Your task to perform on an android device: Open network settings Image 0: 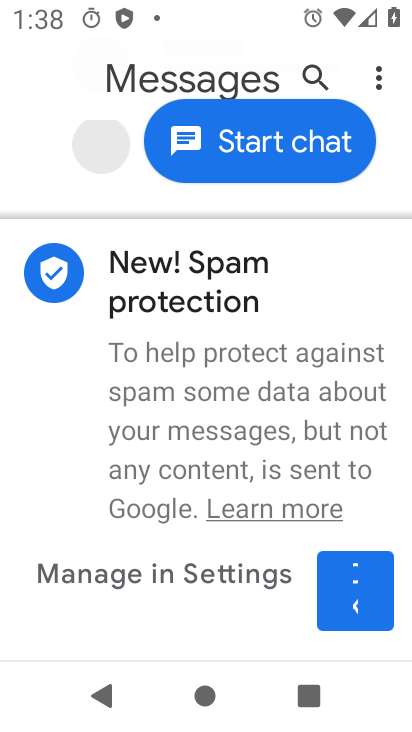
Step 0: press home button
Your task to perform on an android device: Open network settings Image 1: 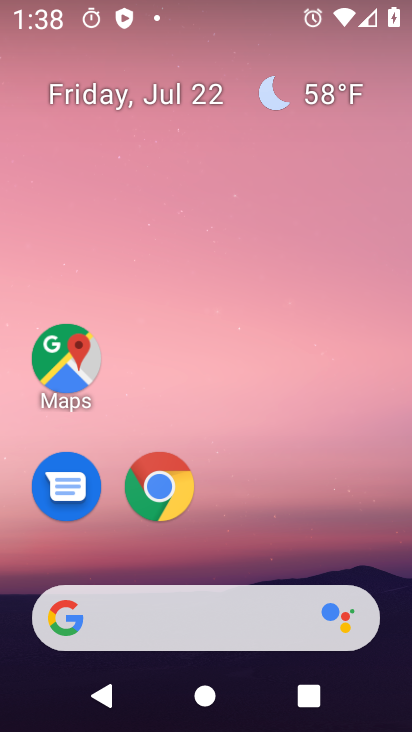
Step 1: drag from (386, 527) to (369, 156)
Your task to perform on an android device: Open network settings Image 2: 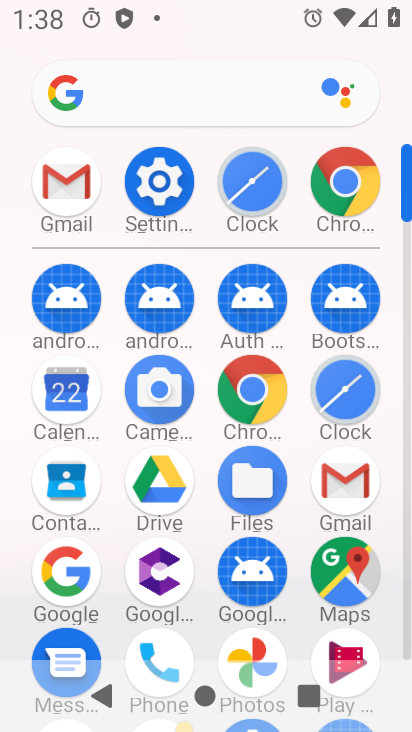
Step 2: click (160, 192)
Your task to perform on an android device: Open network settings Image 3: 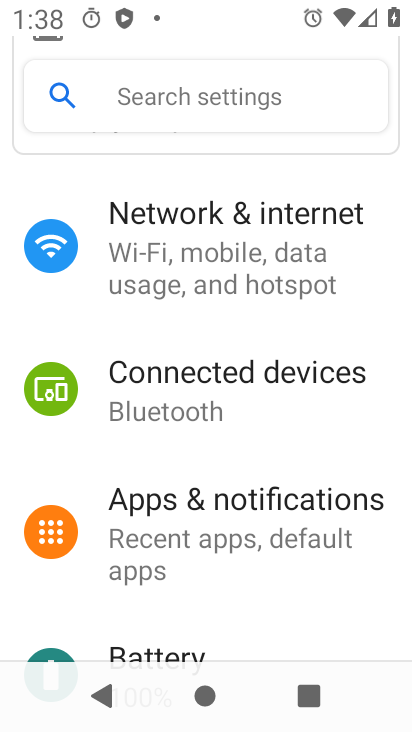
Step 3: drag from (321, 555) to (321, 464)
Your task to perform on an android device: Open network settings Image 4: 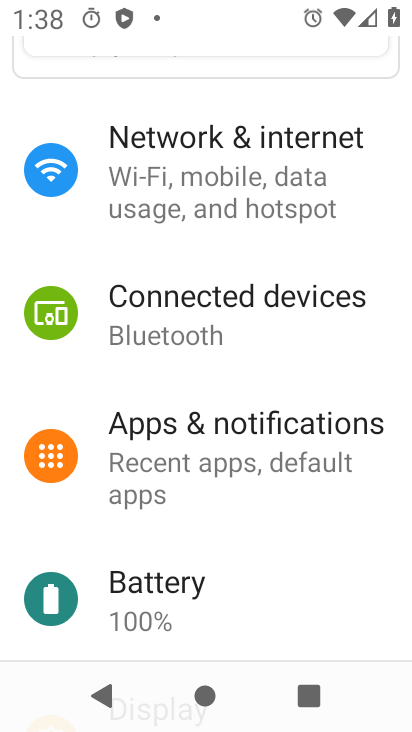
Step 4: drag from (322, 558) to (337, 377)
Your task to perform on an android device: Open network settings Image 5: 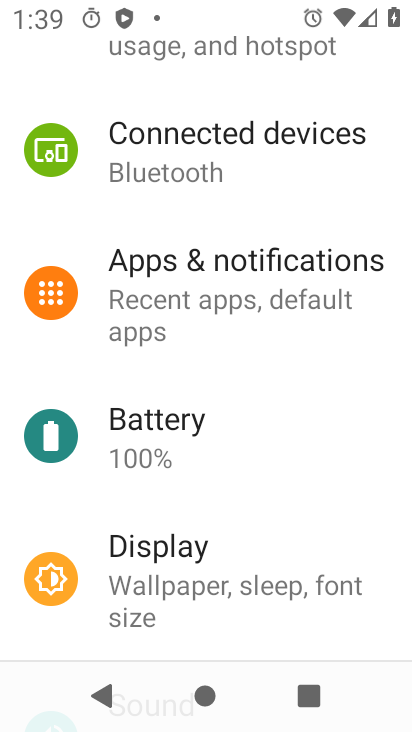
Step 5: drag from (335, 538) to (338, 417)
Your task to perform on an android device: Open network settings Image 6: 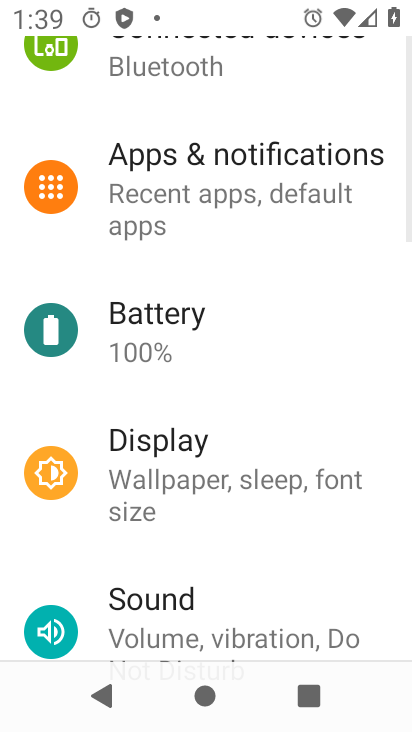
Step 6: drag from (341, 555) to (358, 417)
Your task to perform on an android device: Open network settings Image 7: 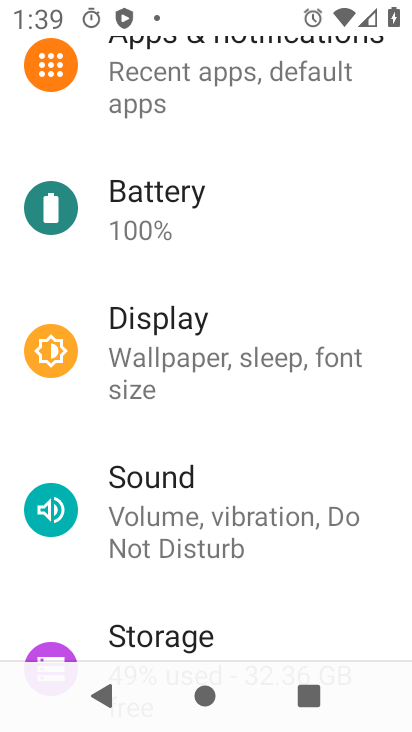
Step 7: drag from (365, 409) to (359, 312)
Your task to perform on an android device: Open network settings Image 8: 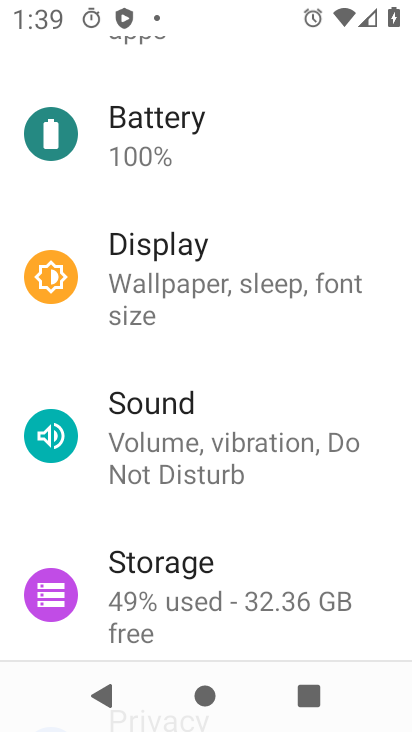
Step 8: drag from (359, 216) to (363, 282)
Your task to perform on an android device: Open network settings Image 9: 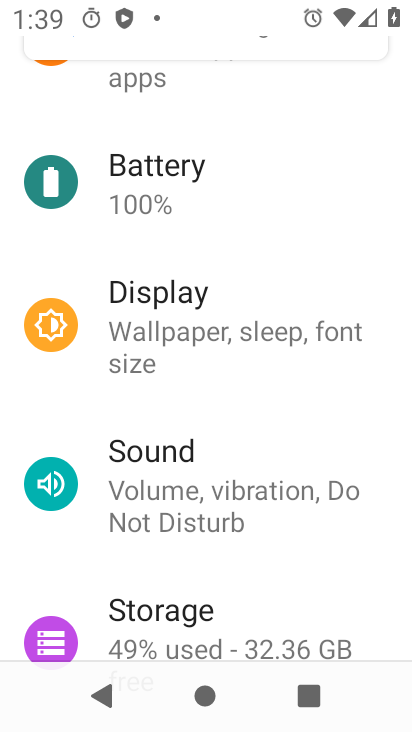
Step 9: drag from (374, 202) to (374, 300)
Your task to perform on an android device: Open network settings Image 10: 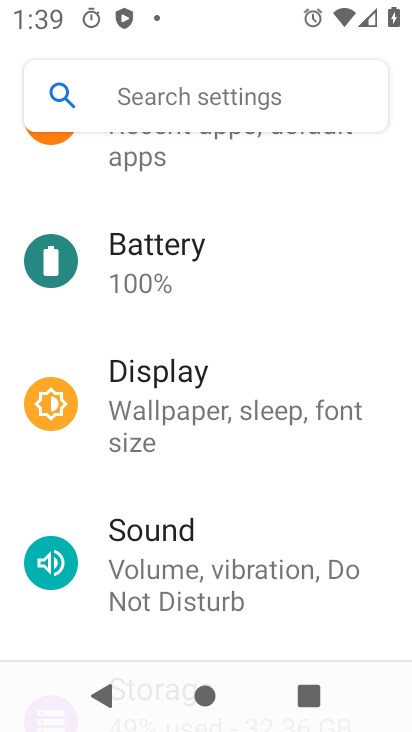
Step 10: drag from (362, 210) to (357, 309)
Your task to perform on an android device: Open network settings Image 11: 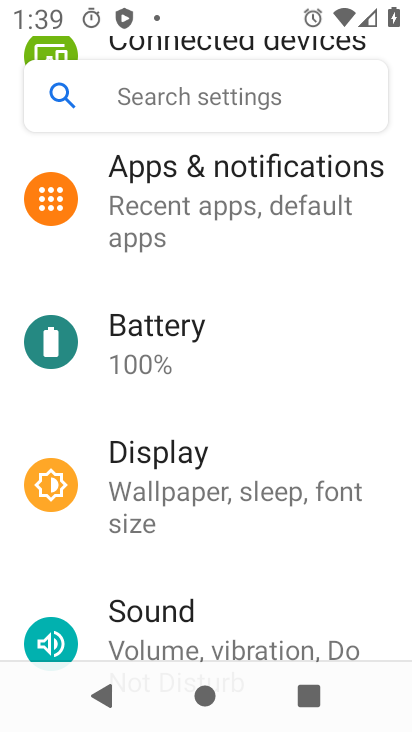
Step 11: drag from (362, 248) to (357, 338)
Your task to perform on an android device: Open network settings Image 12: 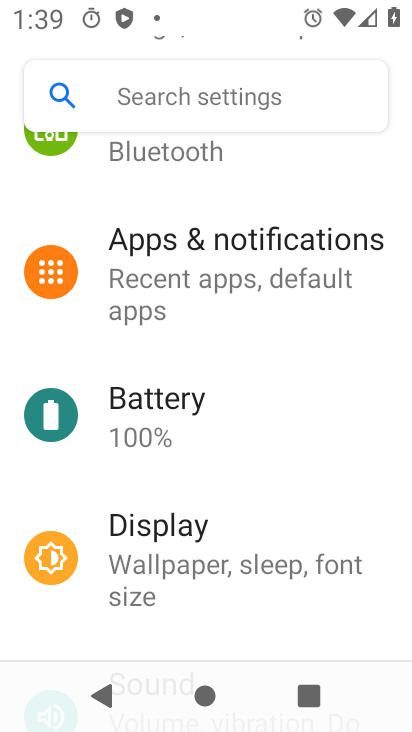
Step 12: drag from (378, 271) to (371, 354)
Your task to perform on an android device: Open network settings Image 13: 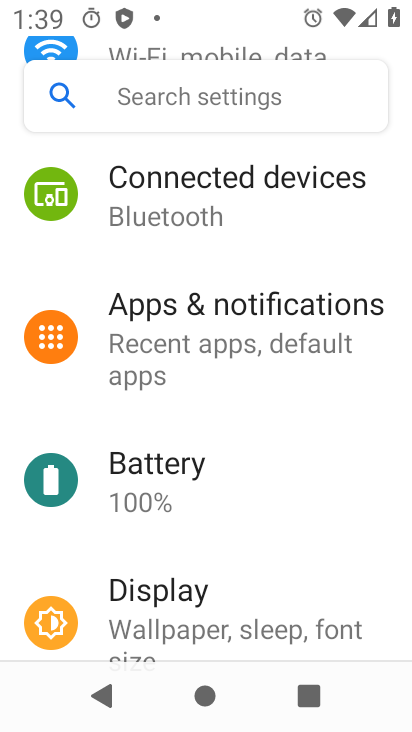
Step 13: drag from (376, 237) to (376, 329)
Your task to perform on an android device: Open network settings Image 14: 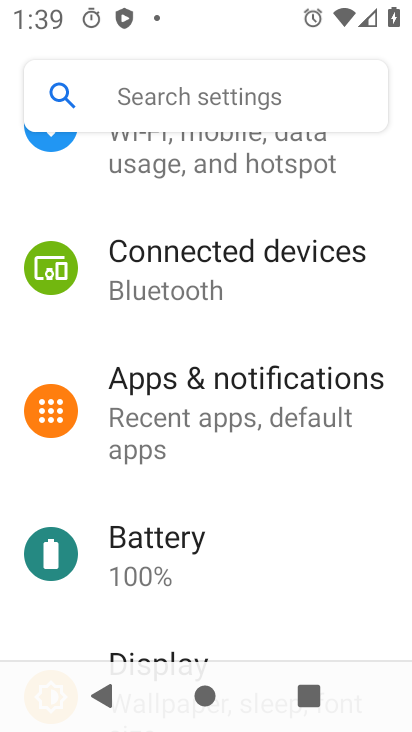
Step 14: drag from (387, 224) to (381, 327)
Your task to perform on an android device: Open network settings Image 15: 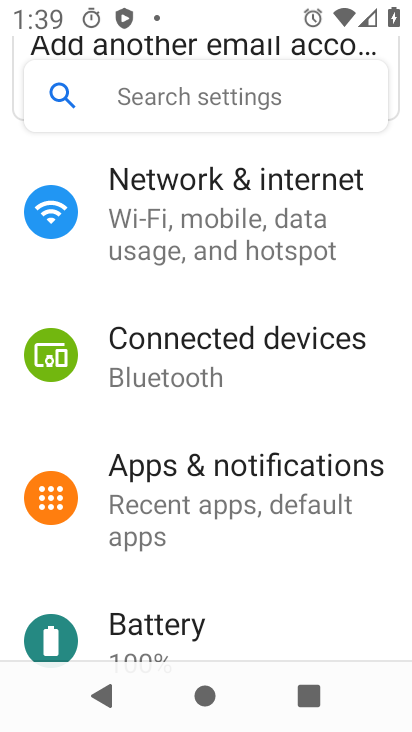
Step 15: drag from (371, 225) to (371, 387)
Your task to perform on an android device: Open network settings Image 16: 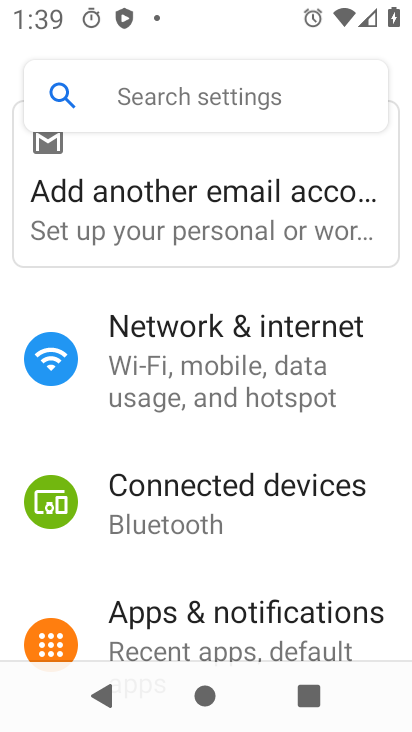
Step 16: click (367, 377)
Your task to perform on an android device: Open network settings Image 17: 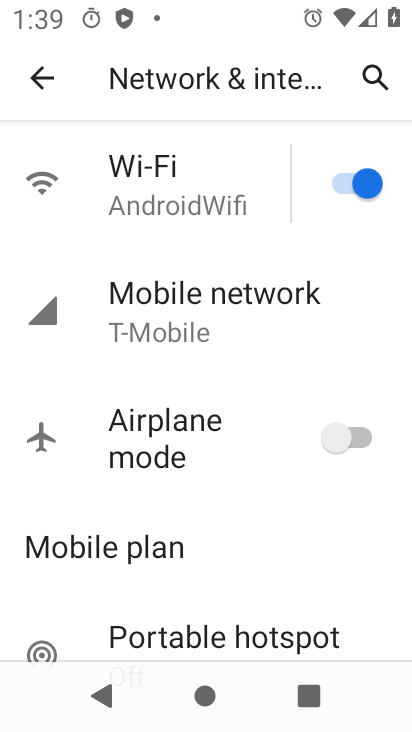
Step 17: task complete